Your task to perform on an android device: What's the weather? Image 0: 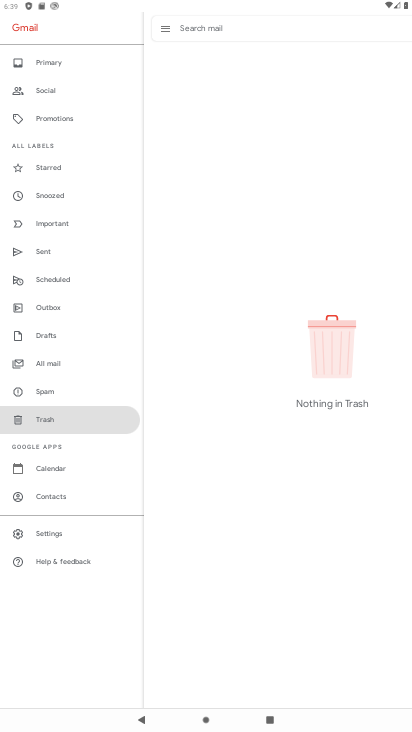
Step 0: press home button
Your task to perform on an android device: What's the weather? Image 1: 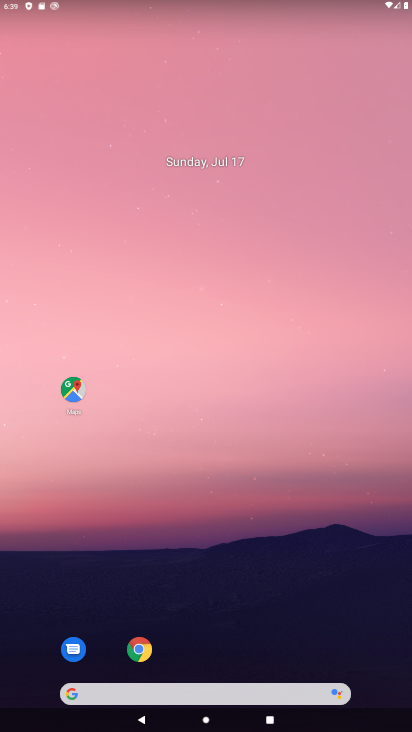
Step 1: click (162, 690)
Your task to perform on an android device: What's the weather? Image 2: 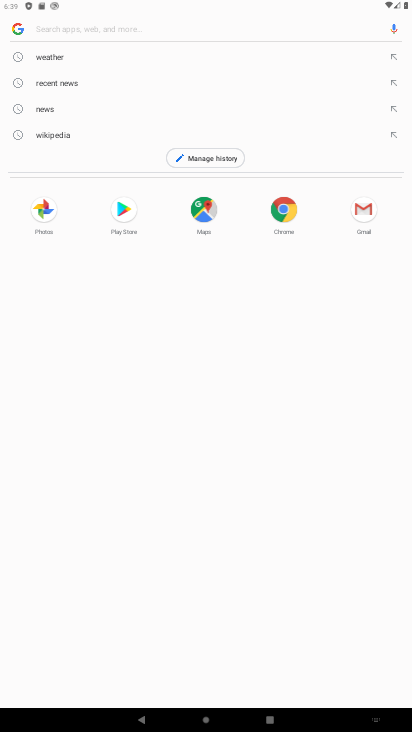
Step 2: click (56, 56)
Your task to perform on an android device: What's the weather? Image 3: 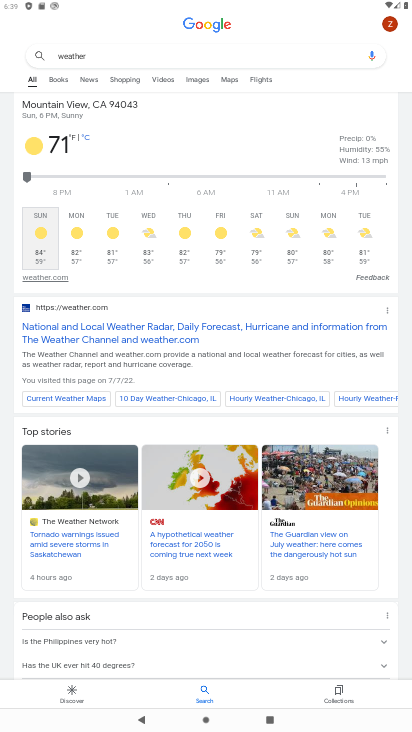
Step 3: task complete